Your task to perform on an android device: change notifications settings Image 0: 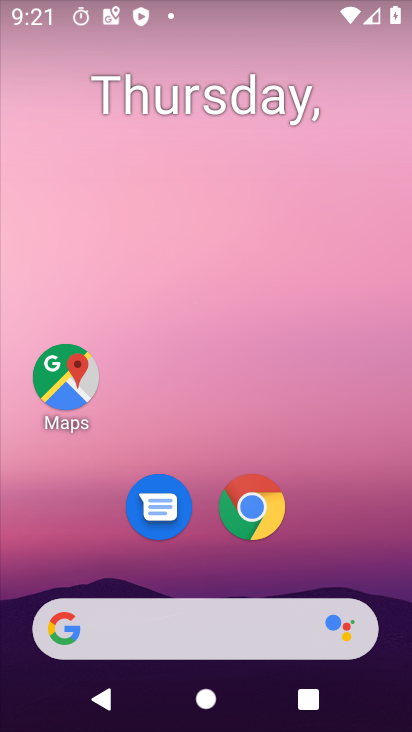
Step 0: drag from (239, 562) to (237, 128)
Your task to perform on an android device: change notifications settings Image 1: 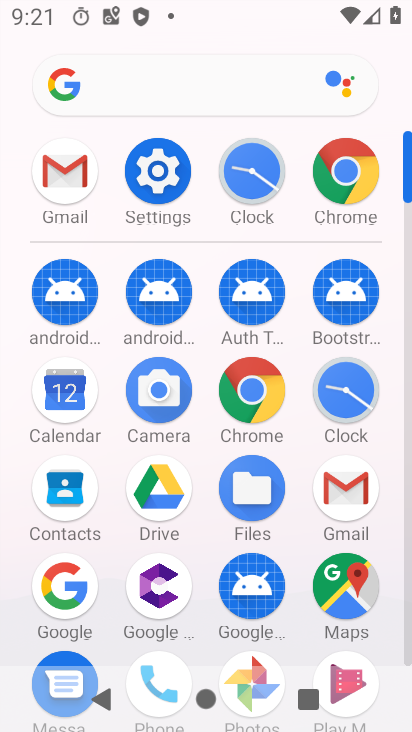
Step 1: click (159, 197)
Your task to perform on an android device: change notifications settings Image 2: 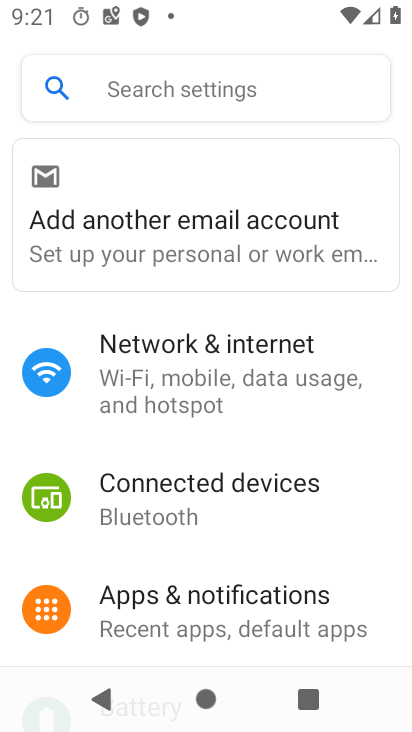
Step 2: click (213, 613)
Your task to perform on an android device: change notifications settings Image 3: 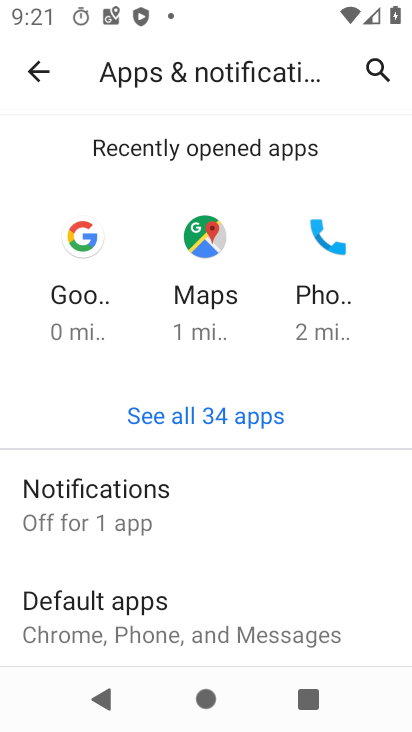
Step 3: click (147, 504)
Your task to perform on an android device: change notifications settings Image 4: 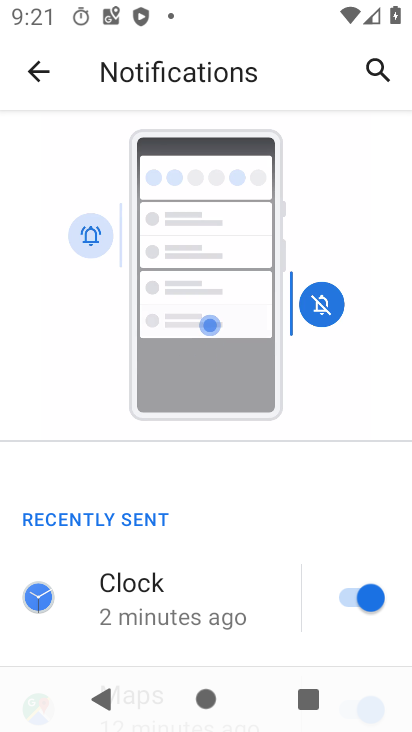
Step 4: task complete